Your task to perform on an android device: Search for flights from Mexico city to Boston Image 0: 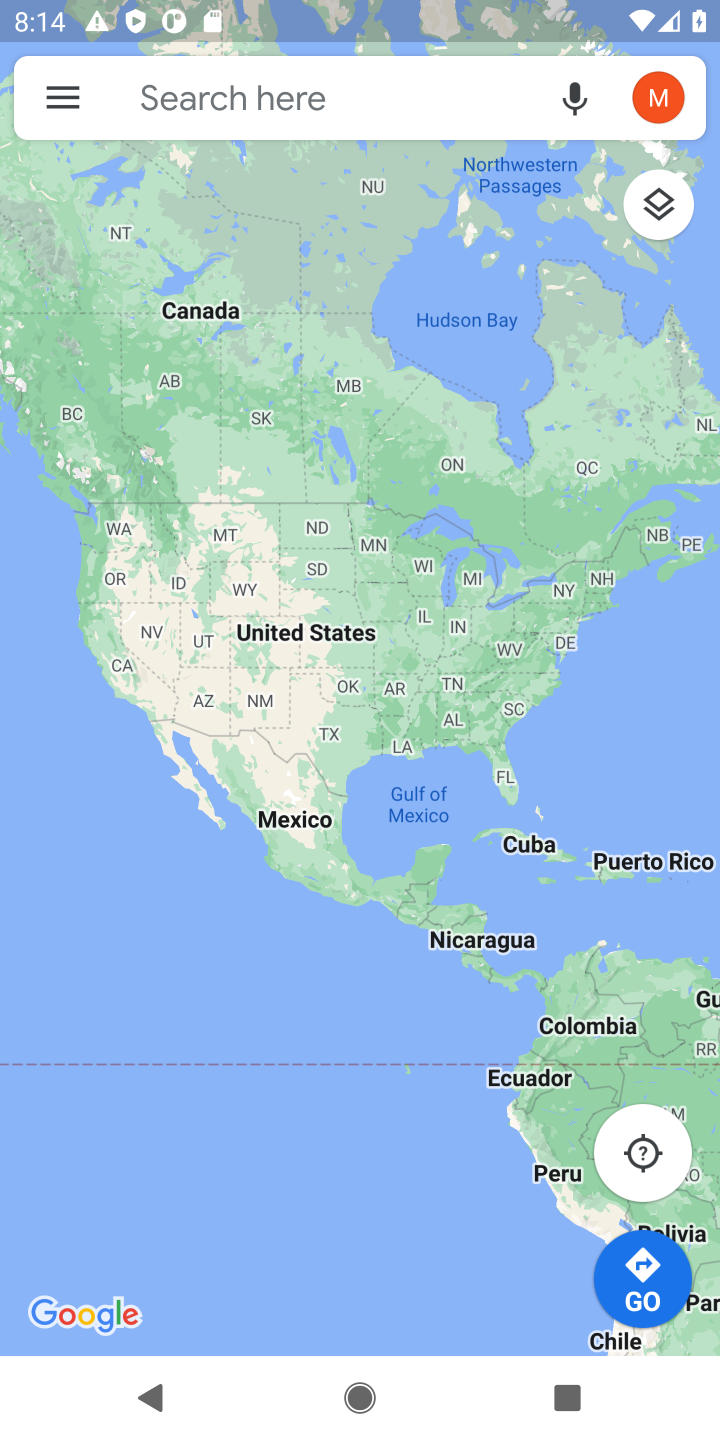
Step 0: press home button
Your task to perform on an android device: Search for flights from Mexico city to Boston Image 1: 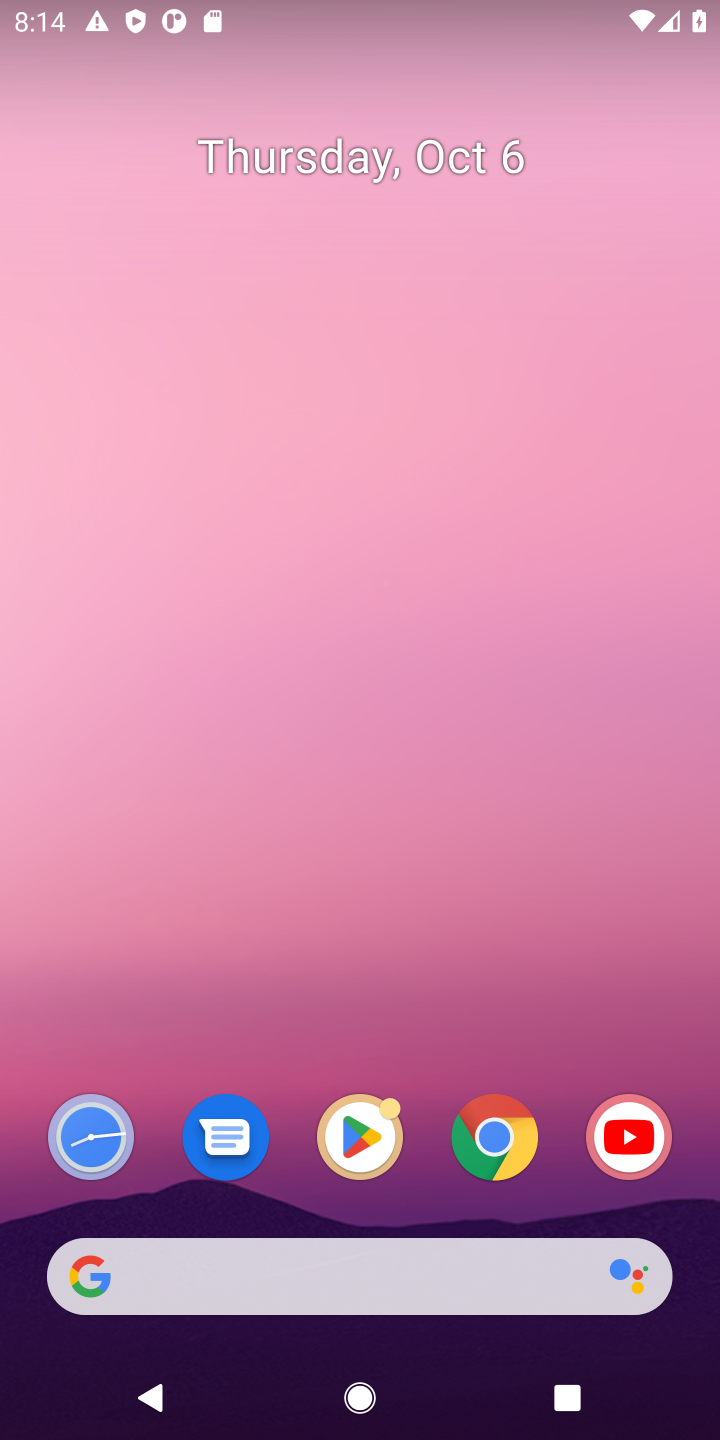
Step 1: click (503, 1139)
Your task to perform on an android device: Search for flights from Mexico city to Boston Image 2: 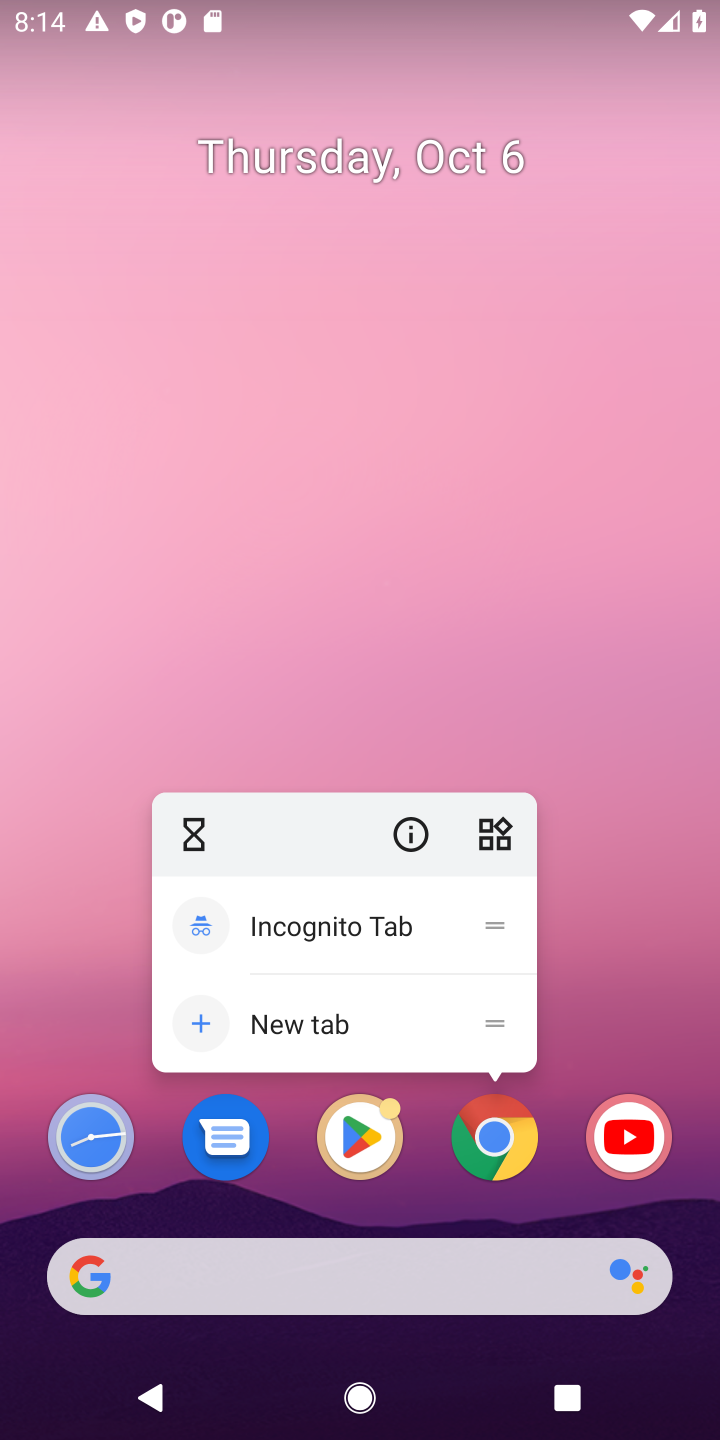
Step 2: click (503, 1142)
Your task to perform on an android device: Search for flights from Mexico city to Boston Image 3: 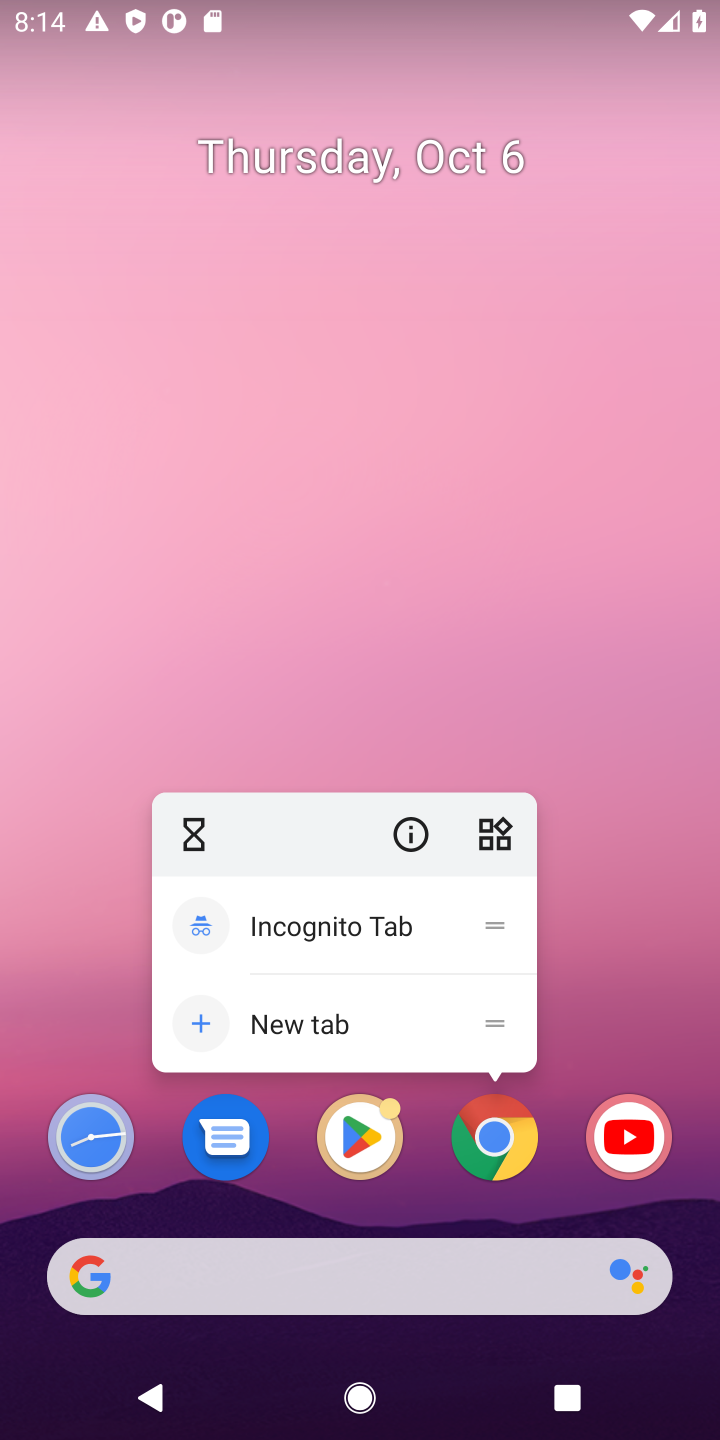
Step 3: click (498, 1157)
Your task to perform on an android device: Search for flights from Mexico city to Boston Image 4: 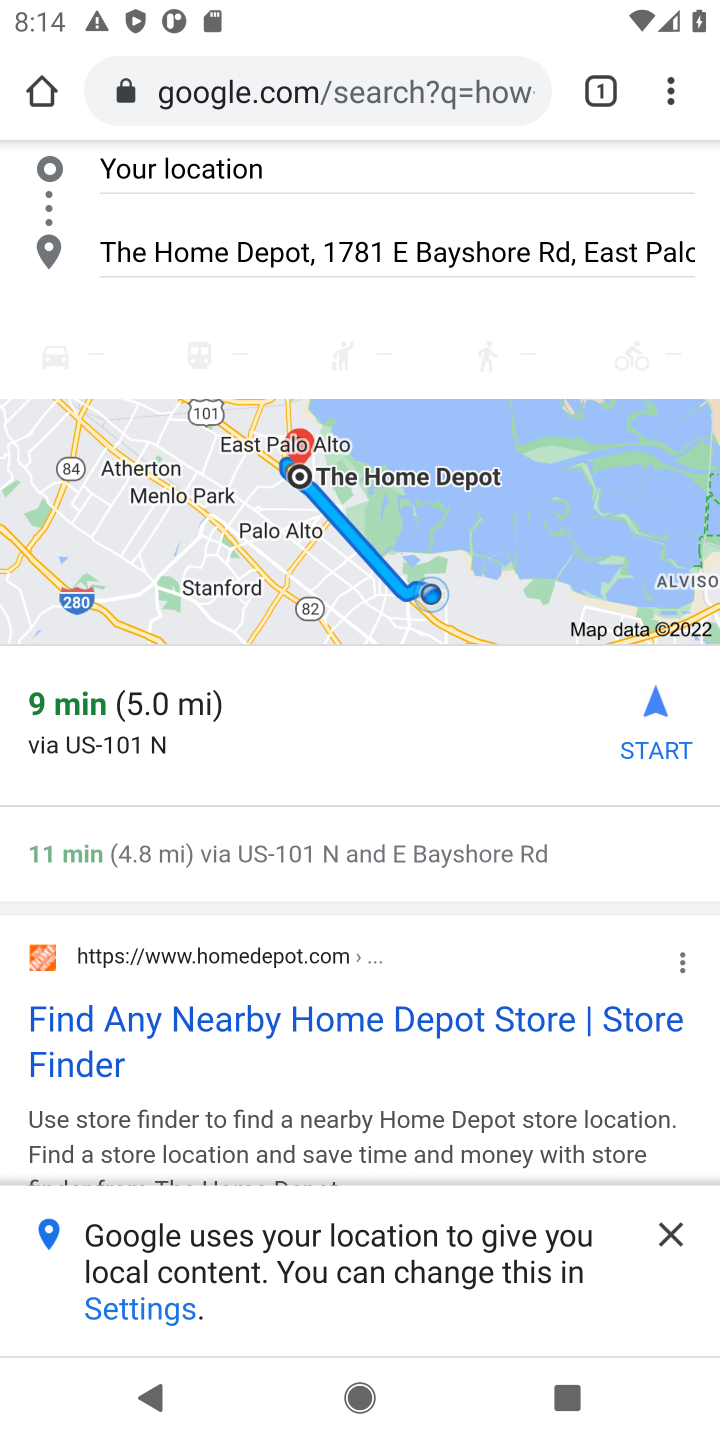
Step 4: click (408, 96)
Your task to perform on an android device: Search for flights from Mexico city to Boston Image 5: 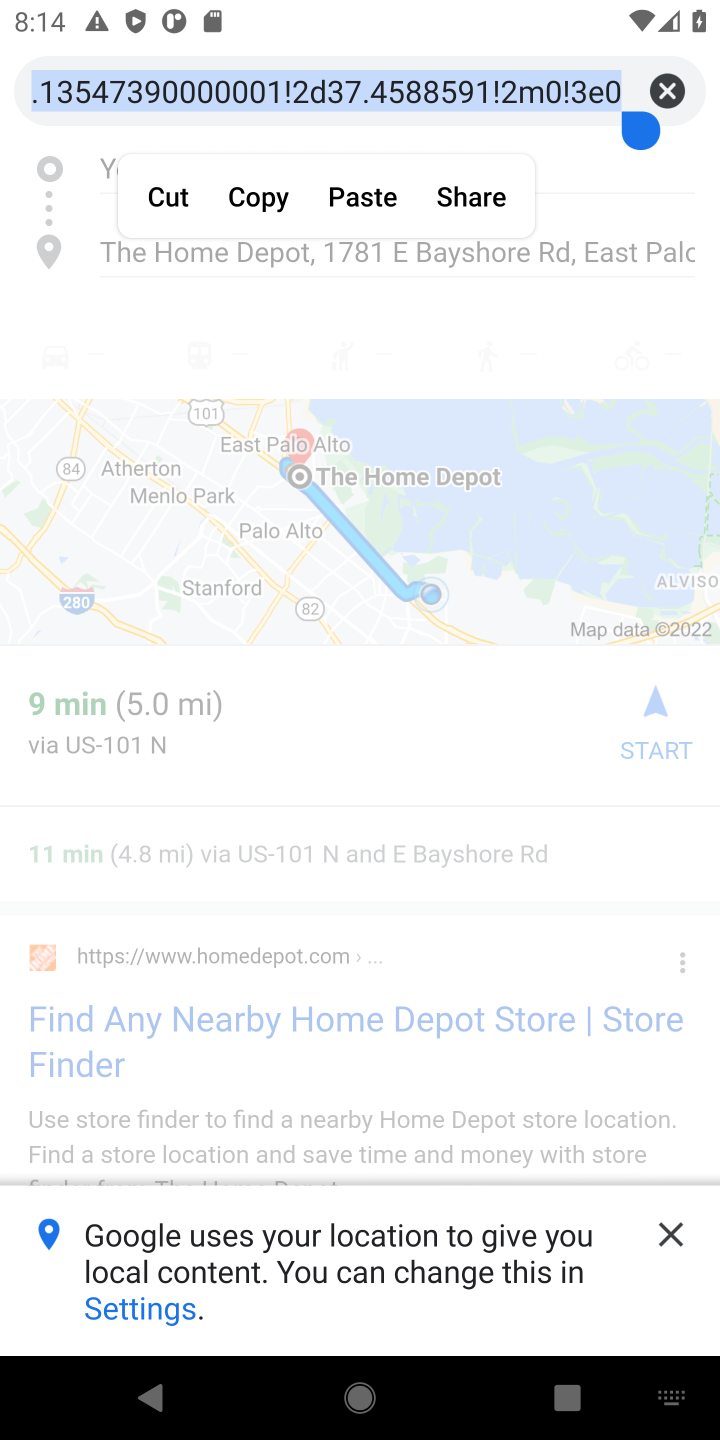
Step 5: click (671, 88)
Your task to perform on an android device: Search for flights from Mexico city to Boston Image 6: 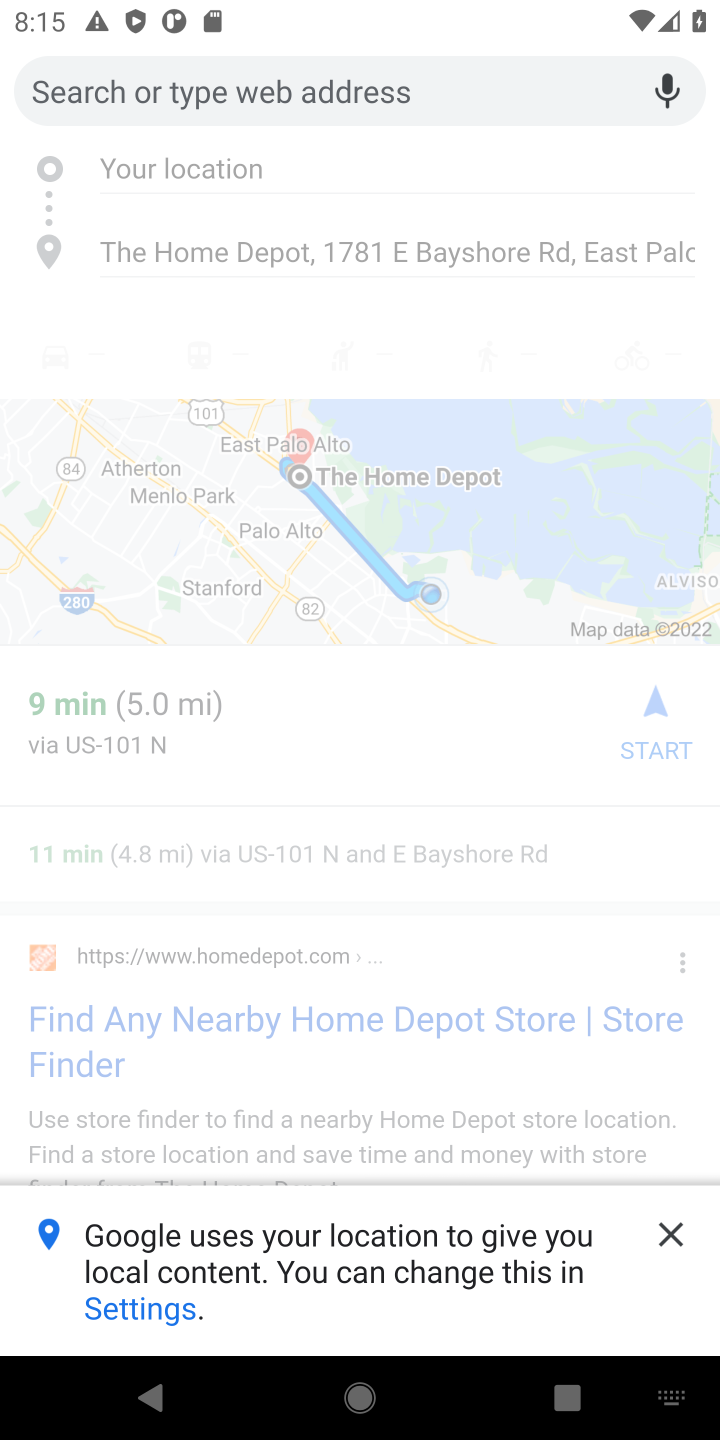
Step 6: press home button
Your task to perform on an android device: Search for flights from Mexico city to Boston Image 7: 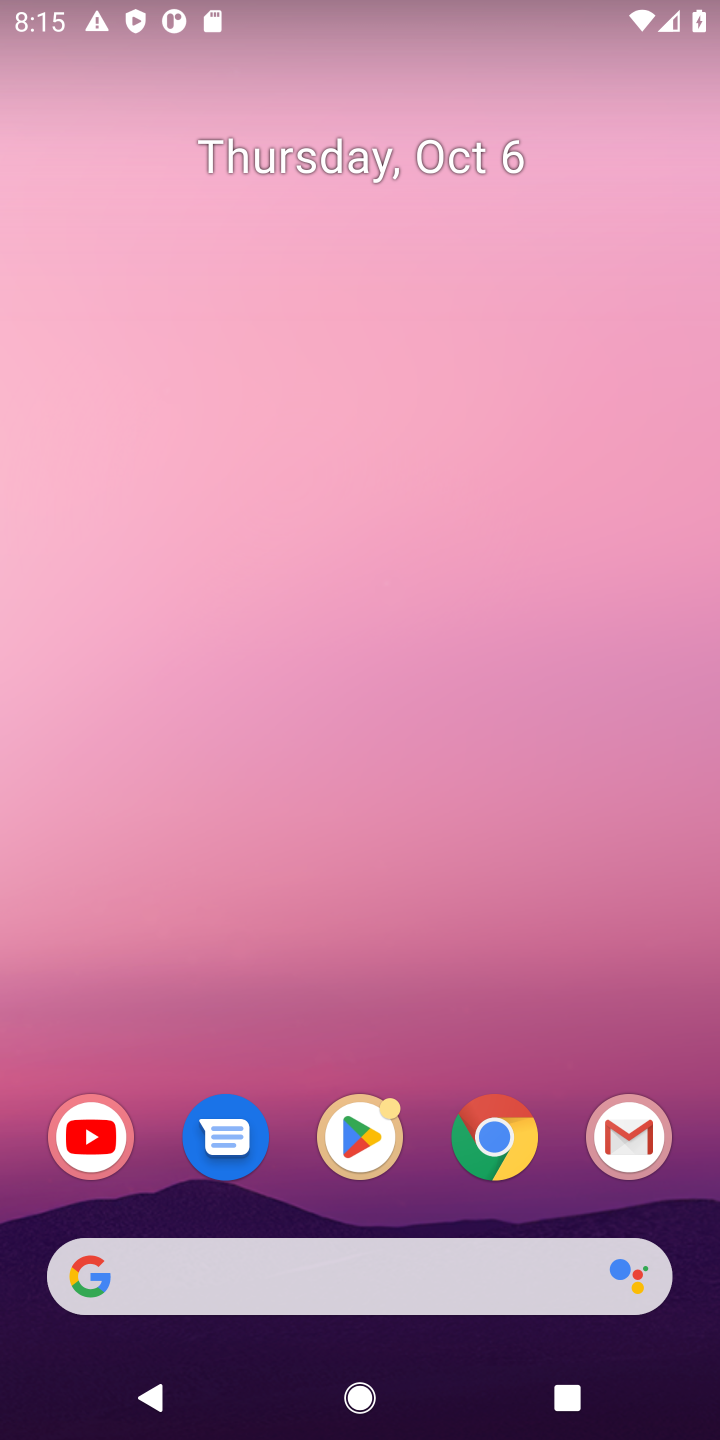
Step 7: click (497, 1145)
Your task to perform on an android device: Search for flights from Mexico city to Boston Image 8: 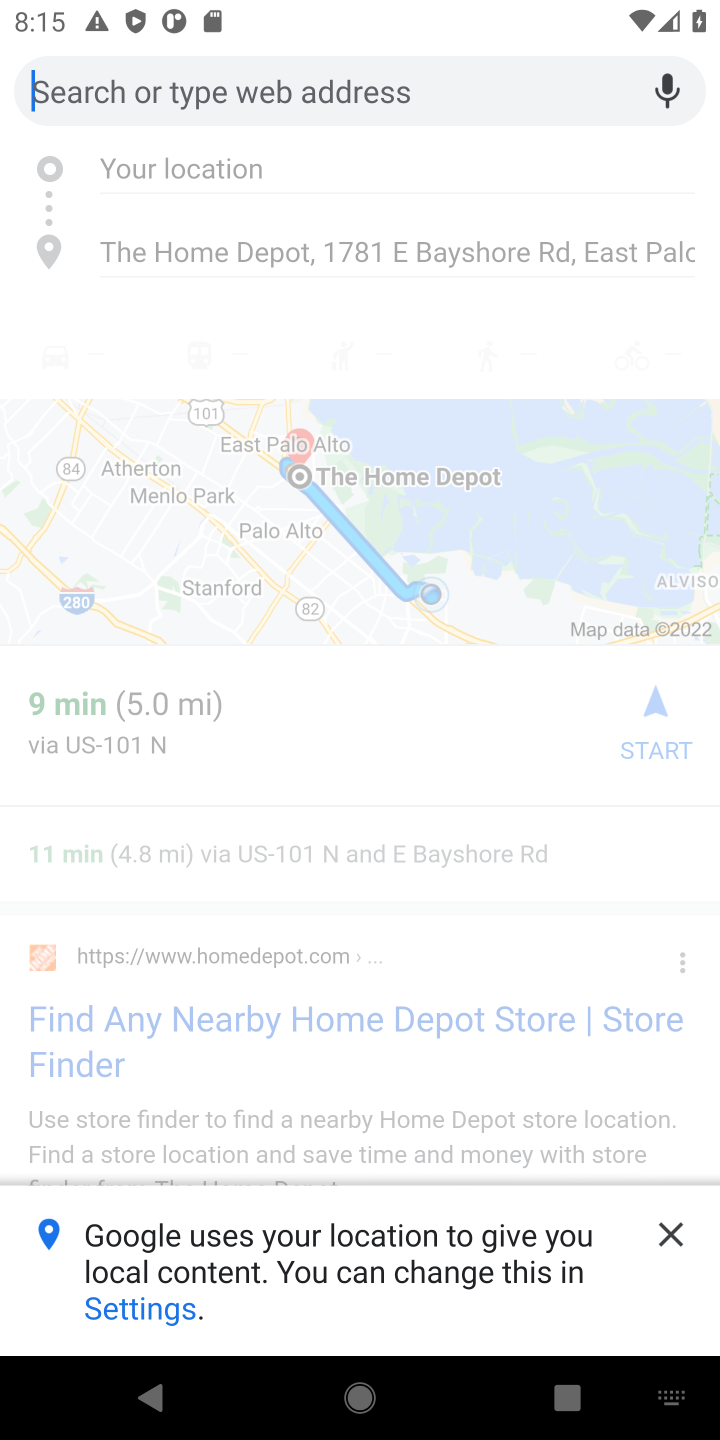
Step 8: click (229, 86)
Your task to perform on an android device: Search for flights from Mexico city to Boston Image 9: 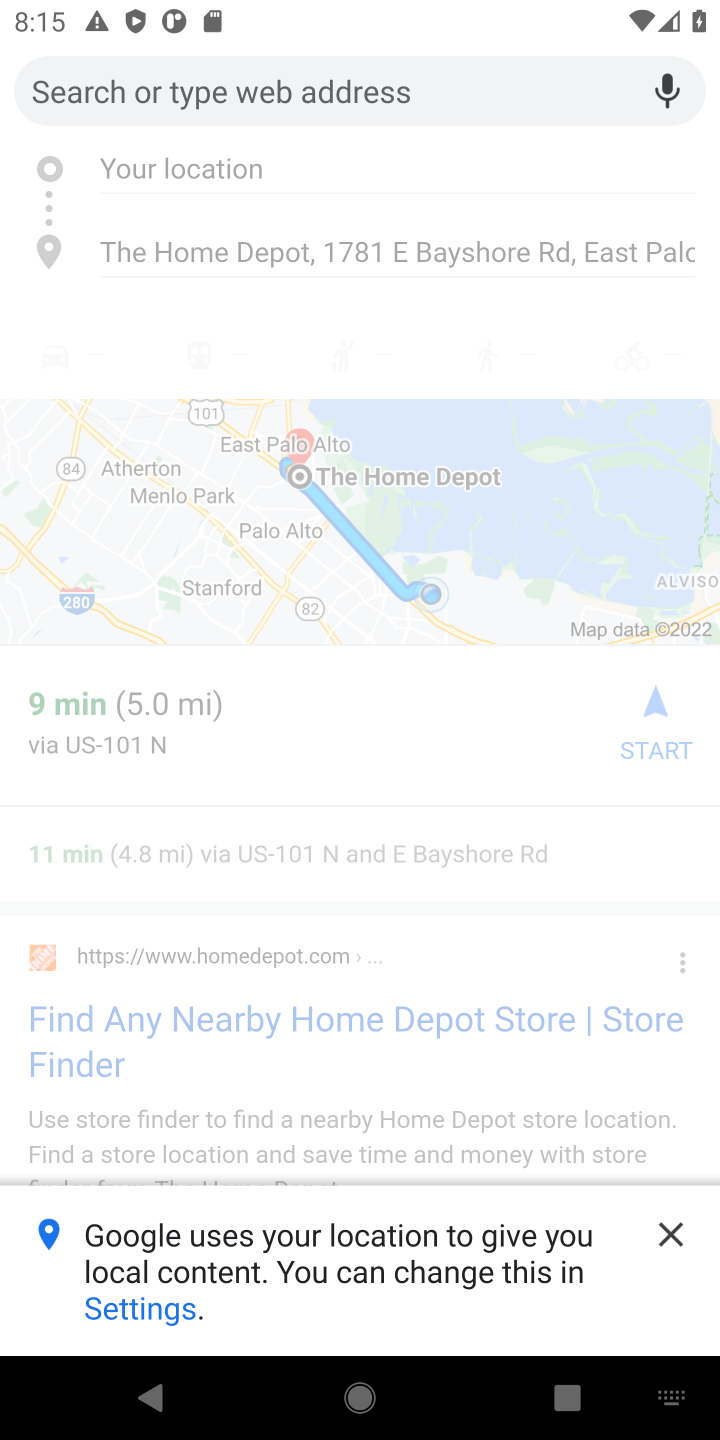
Step 9: type "flights from Mexico city to Boston"
Your task to perform on an android device: Search for flights from Mexico city to Boston Image 10: 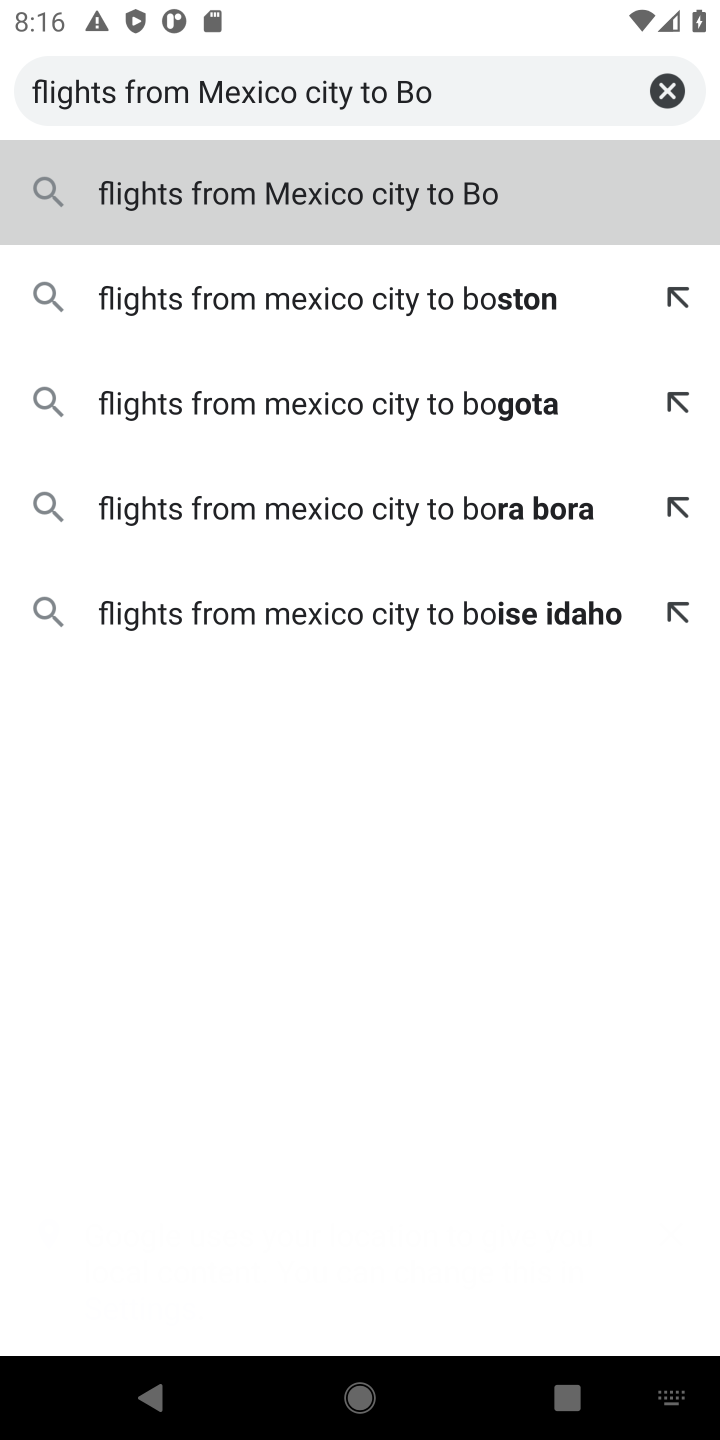
Step 10: click (302, 306)
Your task to perform on an android device: Search for flights from Mexico city to Boston Image 11: 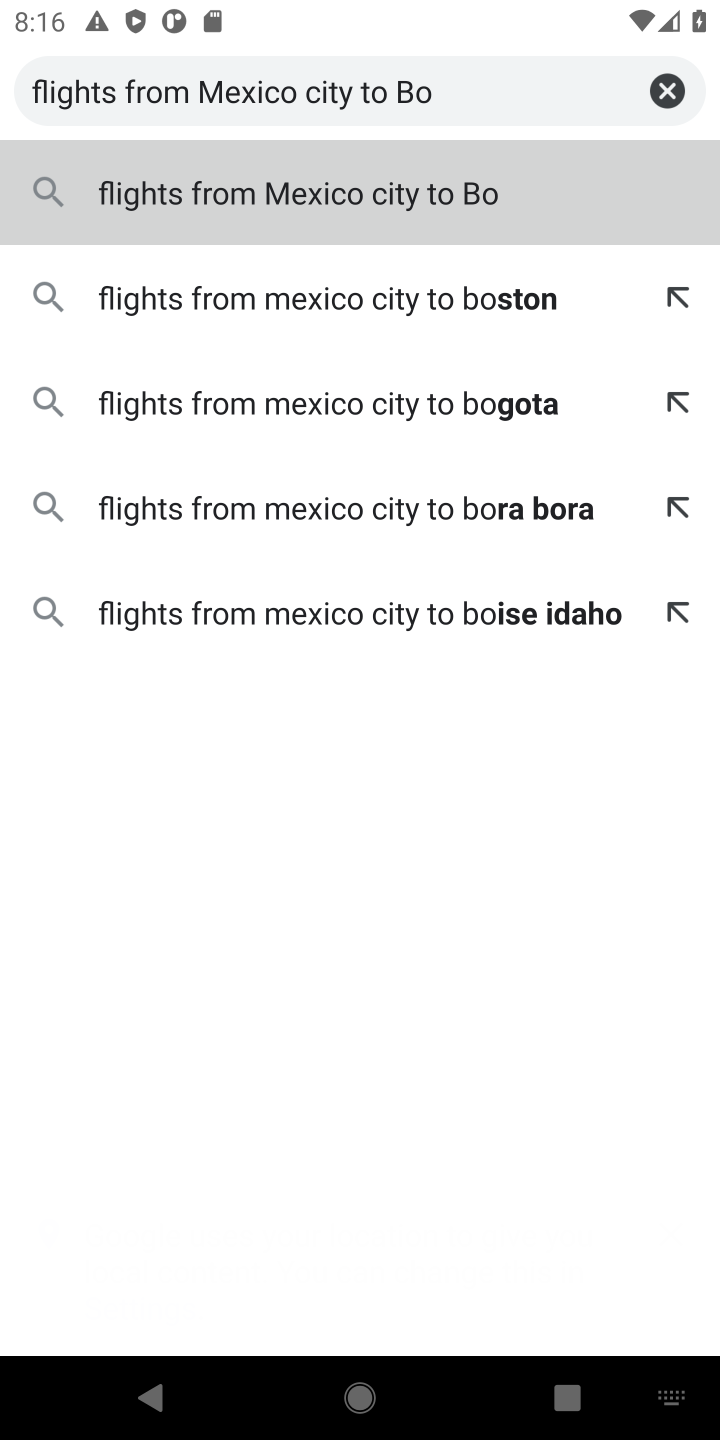
Step 11: click (670, 302)
Your task to perform on an android device: Search for flights from Mexico city to Boston Image 12: 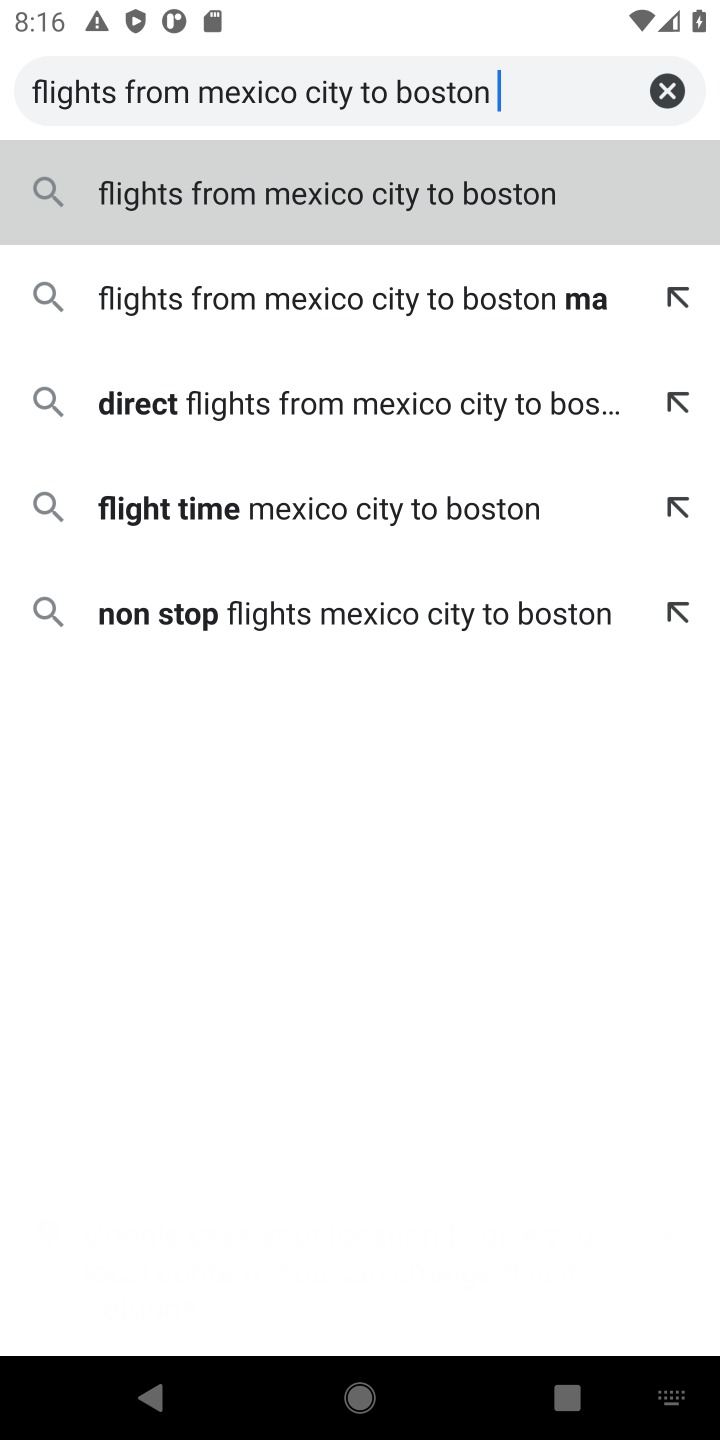
Step 12: click (254, 196)
Your task to perform on an android device: Search for flights from Mexico city to Boston Image 13: 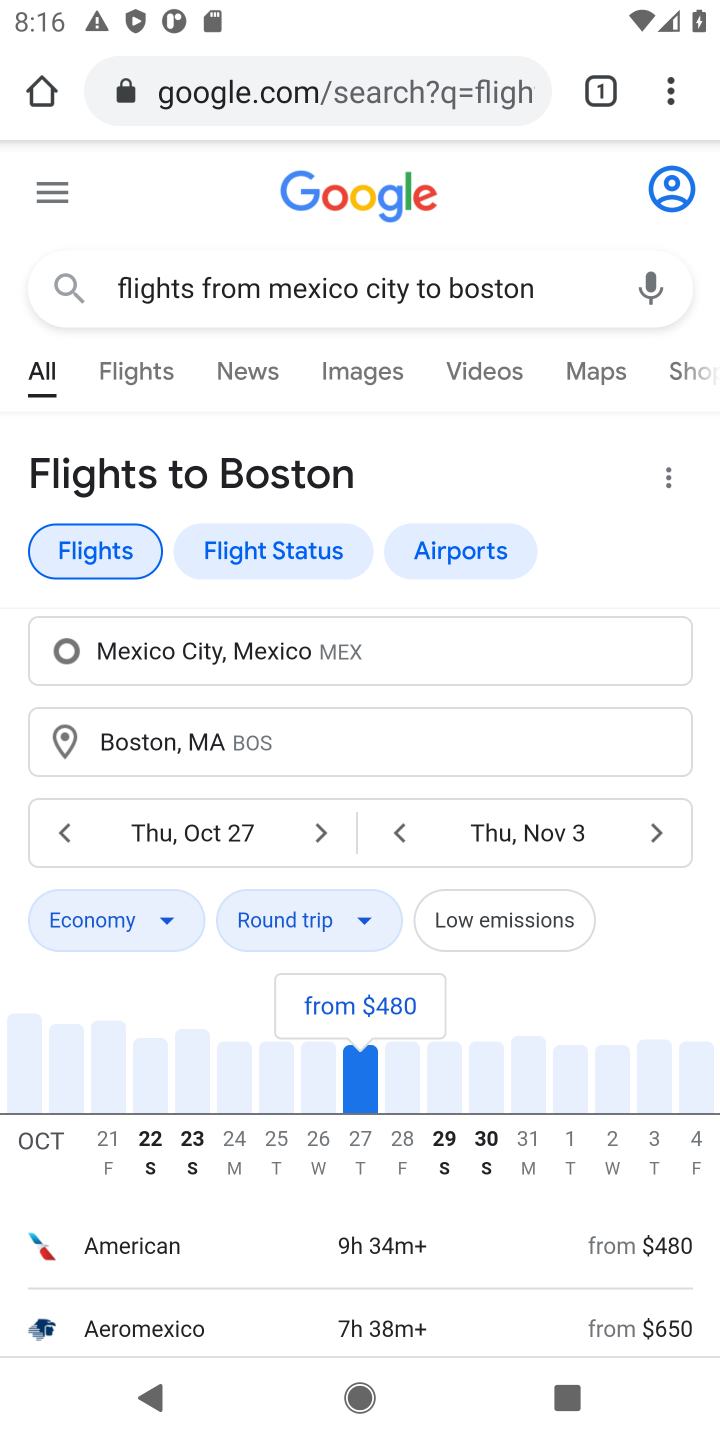
Step 13: task complete